Your task to perform on an android device: change the clock display to show seconds Image 0: 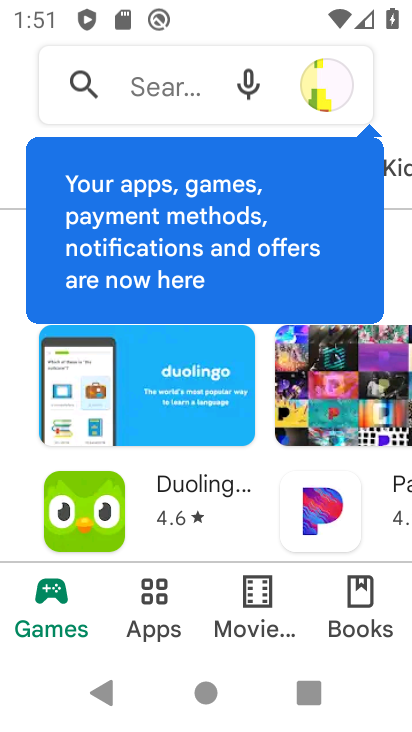
Step 0: press home button
Your task to perform on an android device: change the clock display to show seconds Image 1: 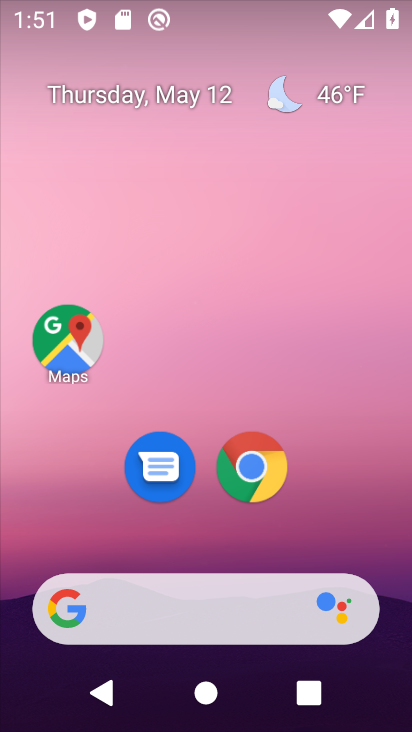
Step 1: drag from (367, 542) to (324, 191)
Your task to perform on an android device: change the clock display to show seconds Image 2: 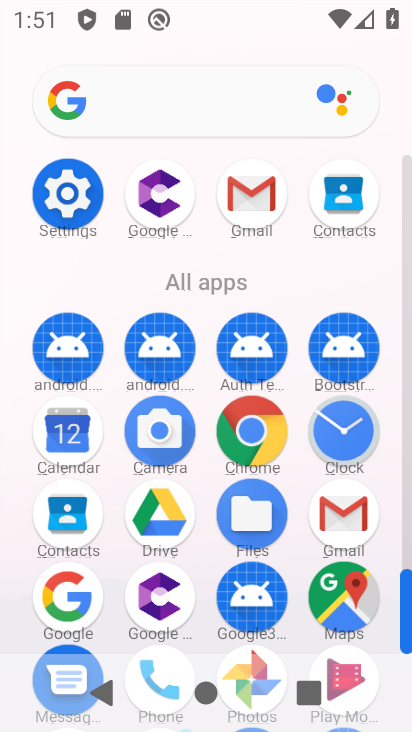
Step 2: click (345, 444)
Your task to perform on an android device: change the clock display to show seconds Image 3: 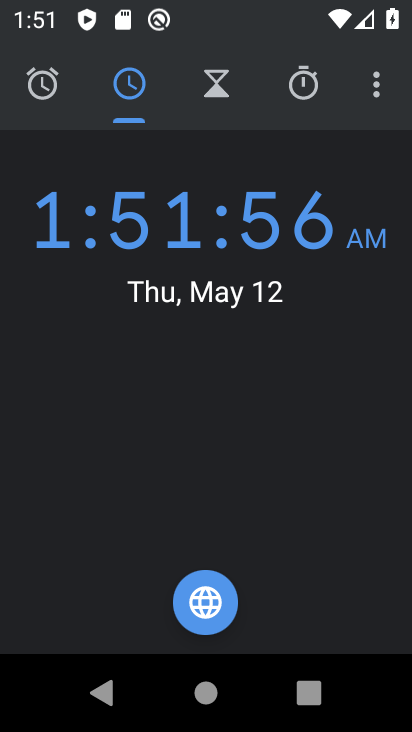
Step 3: click (391, 76)
Your task to perform on an android device: change the clock display to show seconds Image 4: 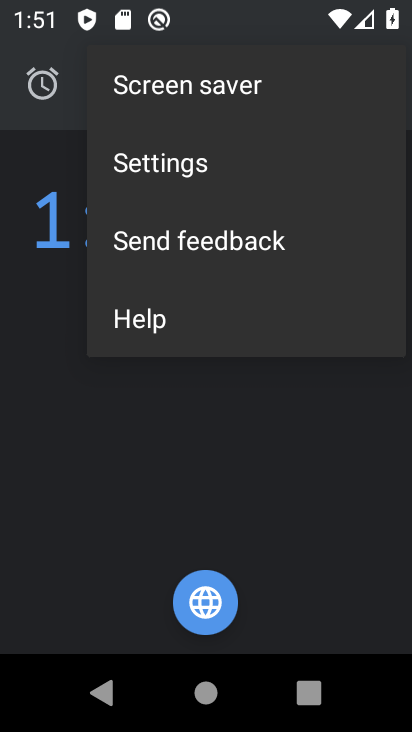
Step 4: click (303, 175)
Your task to perform on an android device: change the clock display to show seconds Image 5: 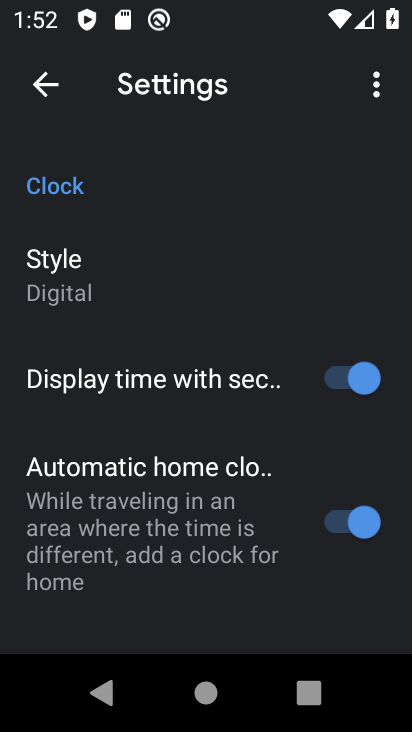
Step 5: task complete